Your task to perform on an android device: turn on javascript in the chrome app Image 0: 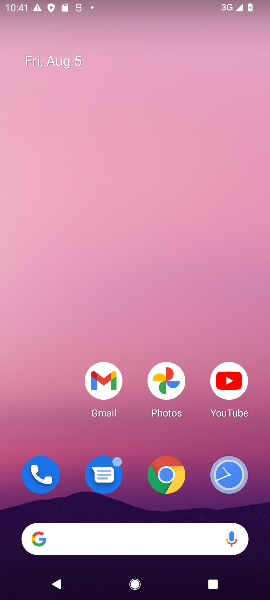
Step 0: click (153, 483)
Your task to perform on an android device: turn on javascript in the chrome app Image 1: 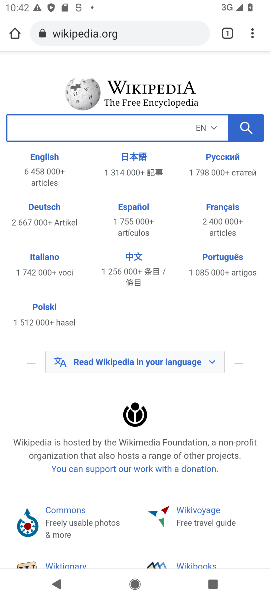
Step 1: click (251, 33)
Your task to perform on an android device: turn on javascript in the chrome app Image 2: 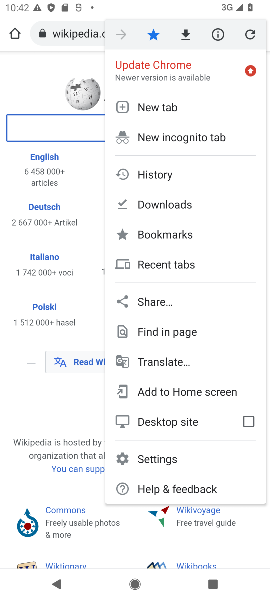
Step 2: click (166, 456)
Your task to perform on an android device: turn on javascript in the chrome app Image 3: 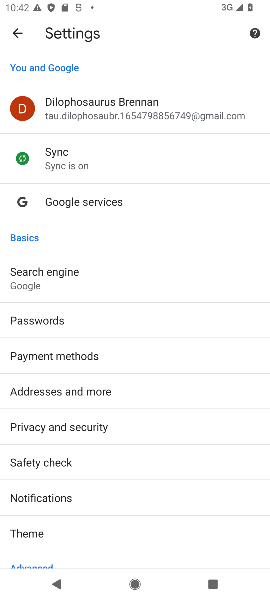
Step 3: drag from (66, 479) to (93, 200)
Your task to perform on an android device: turn on javascript in the chrome app Image 4: 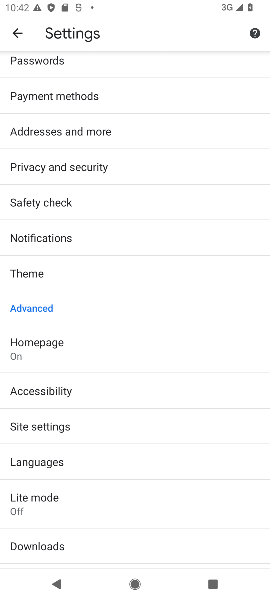
Step 4: click (65, 428)
Your task to perform on an android device: turn on javascript in the chrome app Image 5: 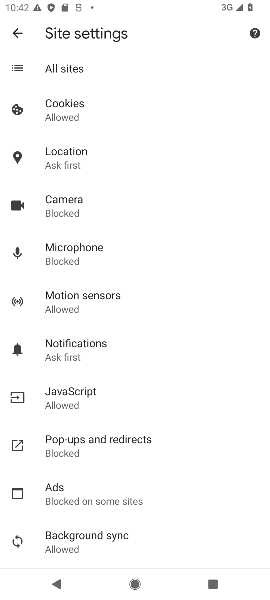
Step 5: click (80, 397)
Your task to perform on an android device: turn on javascript in the chrome app Image 6: 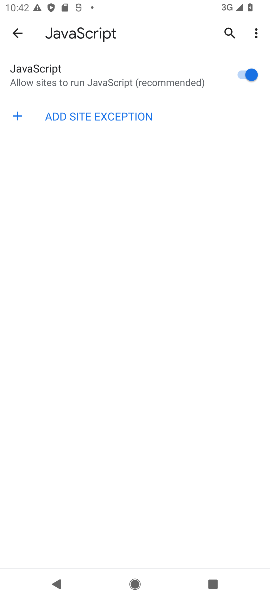
Step 6: task complete